Your task to perform on an android device: Go to Yahoo.com Image 0: 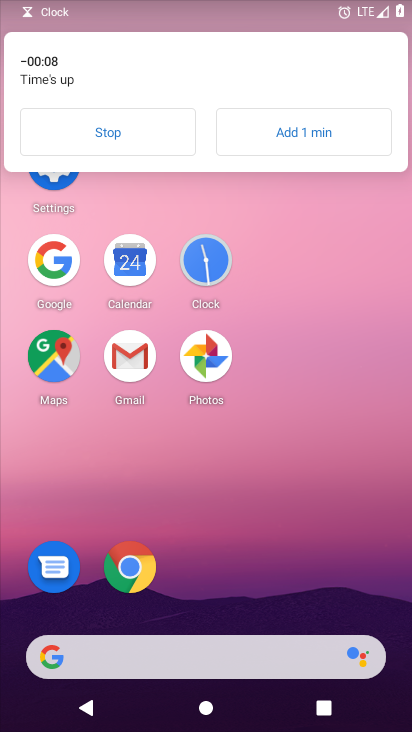
Step 0: click (98, 131)
Your task to perform on an android device: Go to Yahoo.com Image 1: 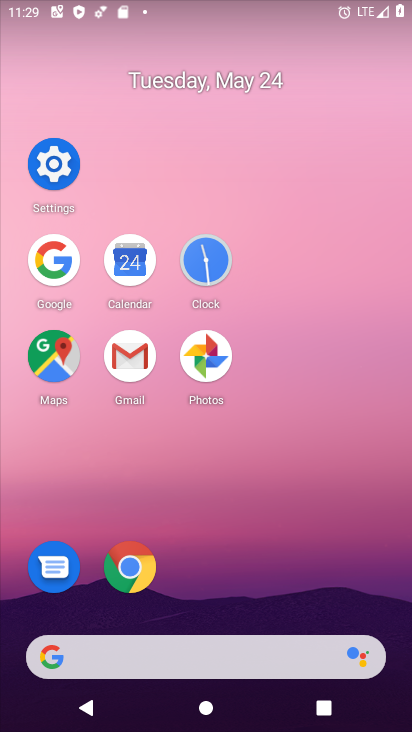
Step 1: click (132, 581)
Your task to perform on an android device: Go to Yahoo.com Image 2: 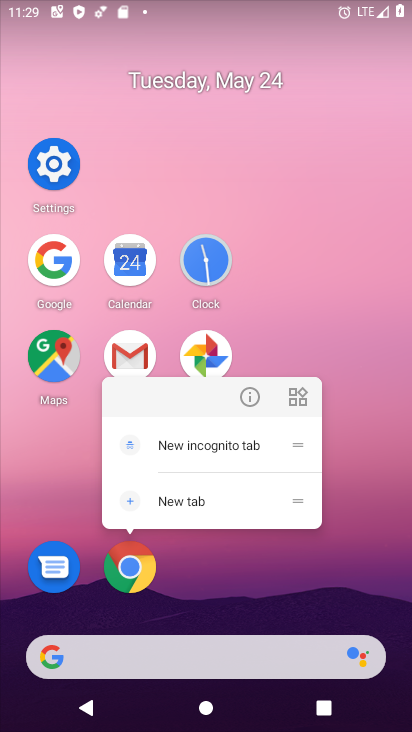
Step 2: click (99, 583)
Your task to perform on an android device: Go to Yahoo.com Image 3: 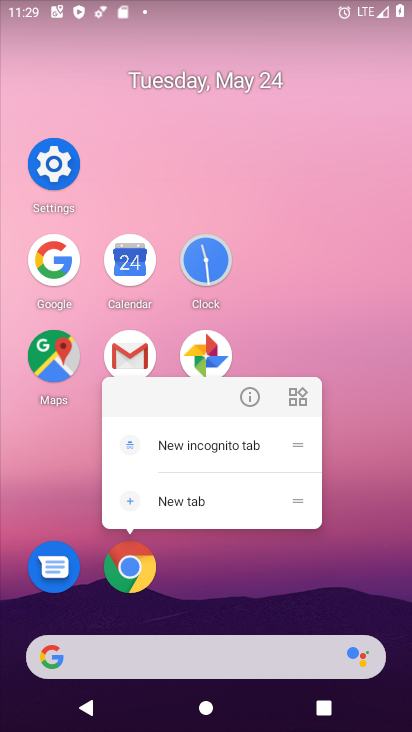
Step 3: click (119, 580)
Your task to perform on an android device: Go to Yahoo.com Image 4: 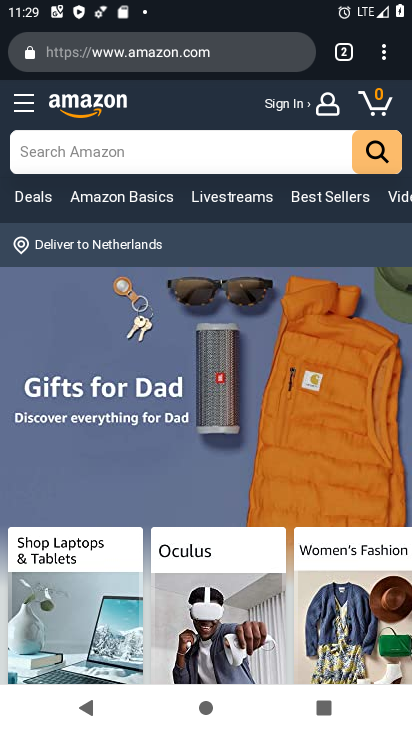
Step 4: click (339, 57)
Your task to perform on an android device: Go to Yahoo.com Image 5: 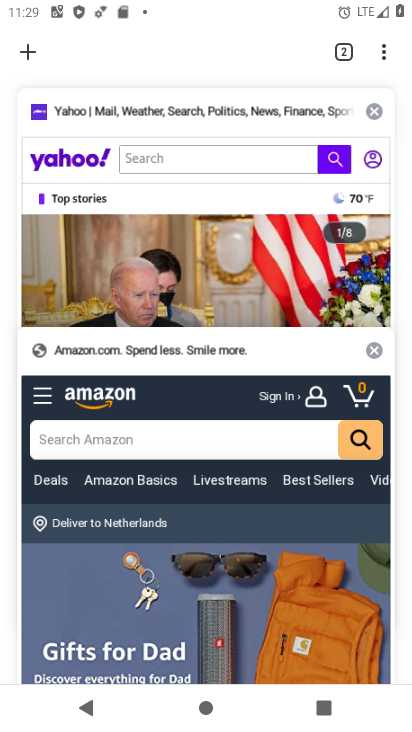
Step 5: click (56, 165)
Your task to perform on an android device: Go to Yahoo.com Image 6: 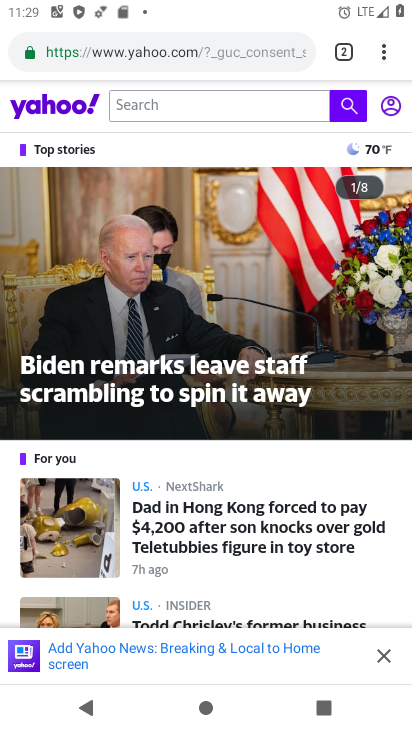
Step 6: task complete